Your task to perform on an android device: search for starred emails in the gmail app Image 0: 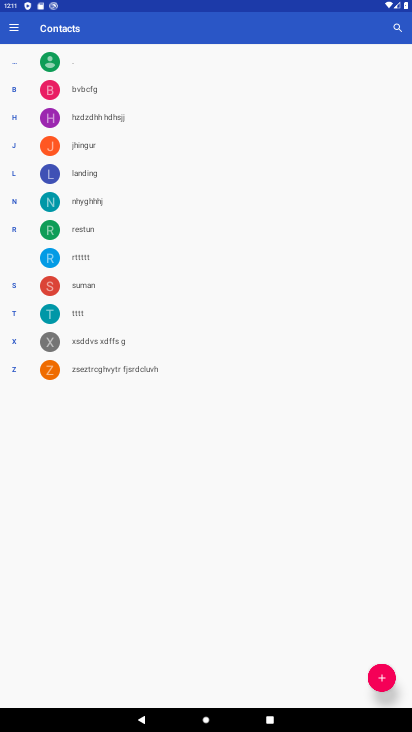
Step 0: press home button
Your task to perform on an android device: search for starred emails in the gmail app Image 1: 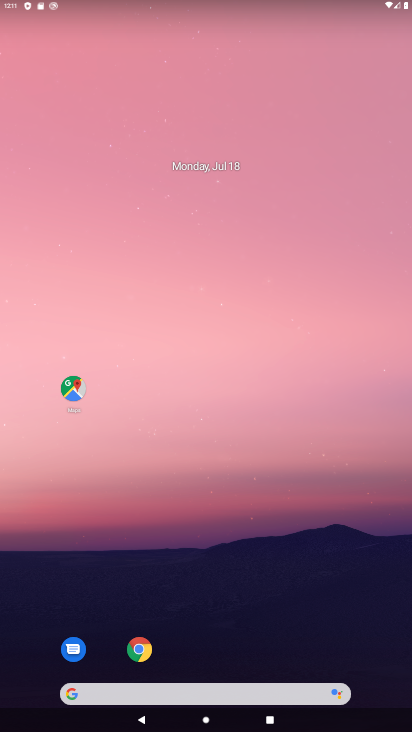
Step 1: drag from (208, 557) to (208, 147)
Your task to perform on an android device: search for starred emails in the gmail app Image 2: 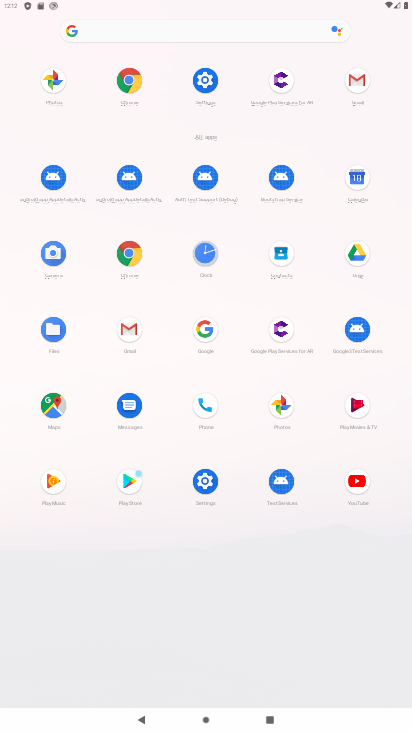
Step 2: click (360, 84)
Your task to perform on an android device: search for starred emails in the gmail app Image 3: 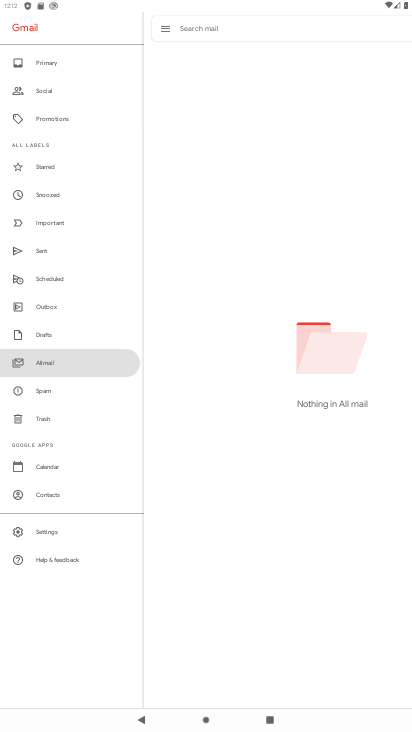
Step 3: click (45, 168)
Your task to perform on an android device: search for starred emails in the gmail app Image 4: 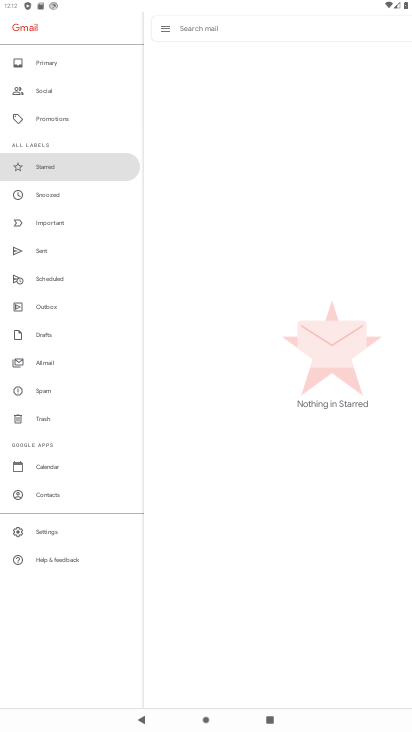
Step 4: task complete